Your task to perform on an android device: Open the phone app and click the voicemail tab. Image 0: 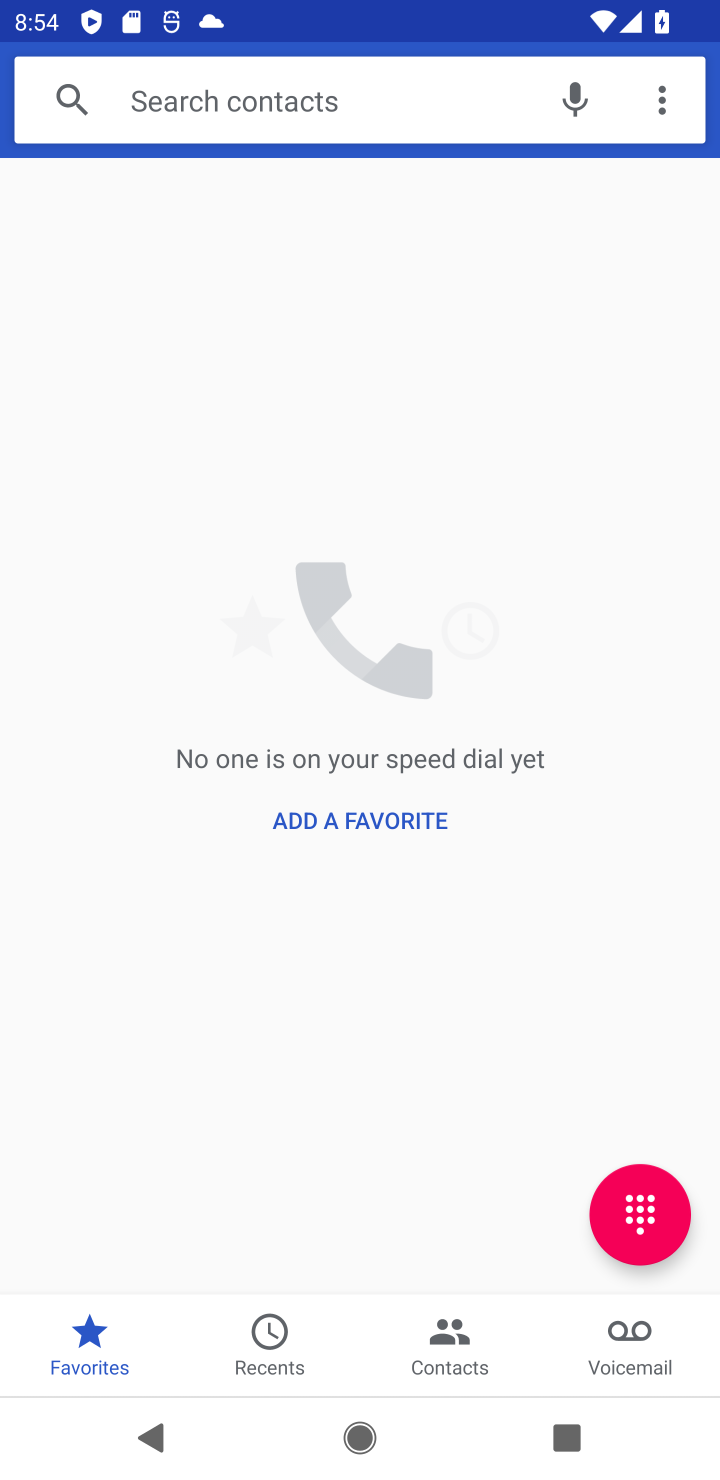
Step 0: press home button
Your task to perform on an android device: Open the phone app and click the voicemail tab. Image 1: 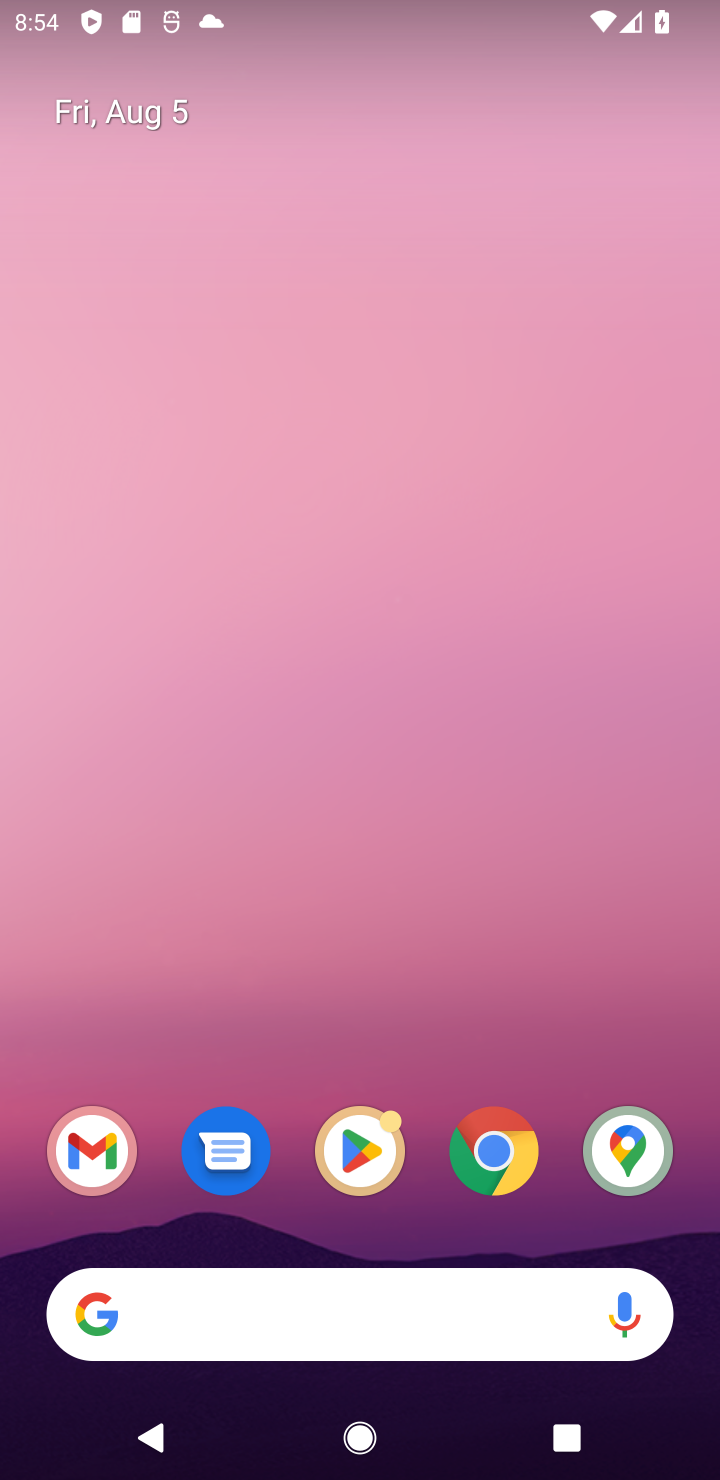
Step 1: drag from (273, 1199) to (402, 123)
Your task to perform on an android device: Open the phone app and click the voicemail tab. Image 2: 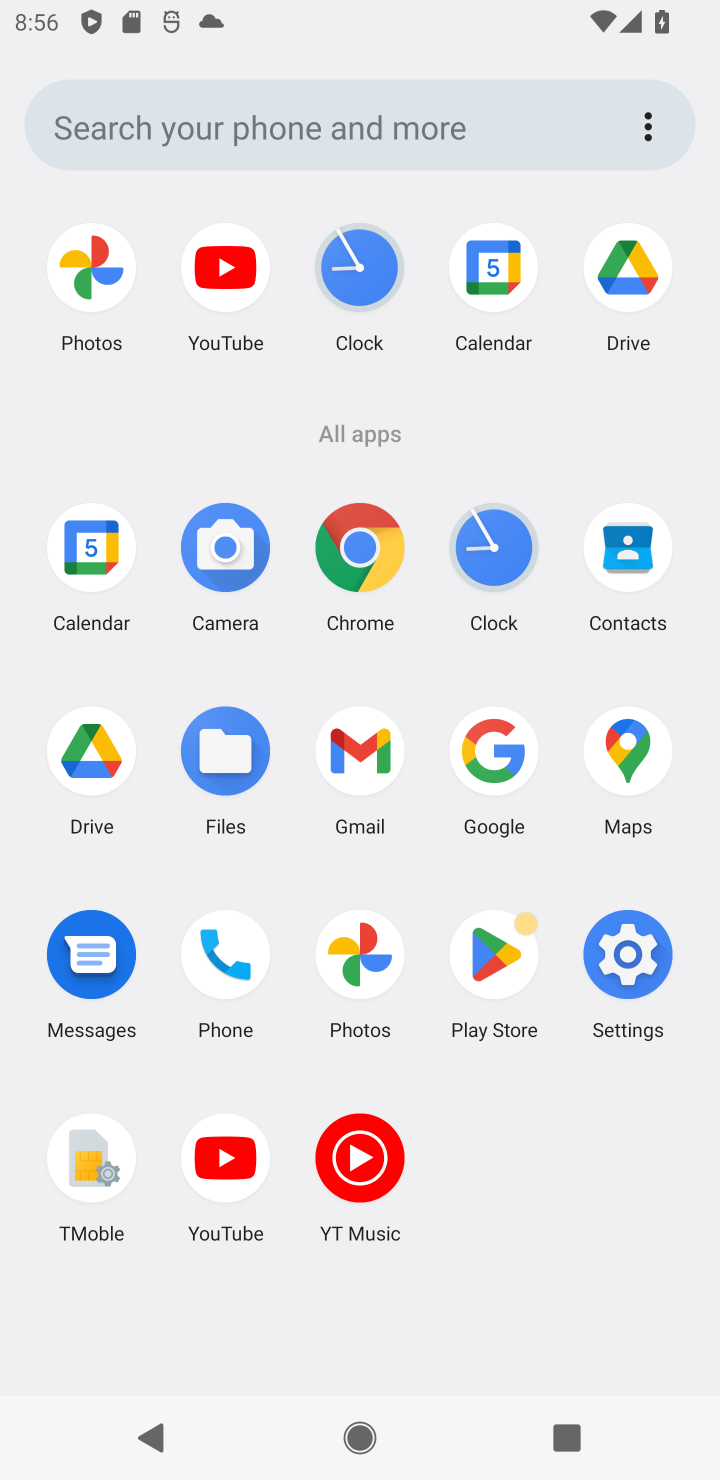
Step 2: click (216, 976)
Your task to perform on an android device: Open the phone app and click the voicemail tab. Image 3: 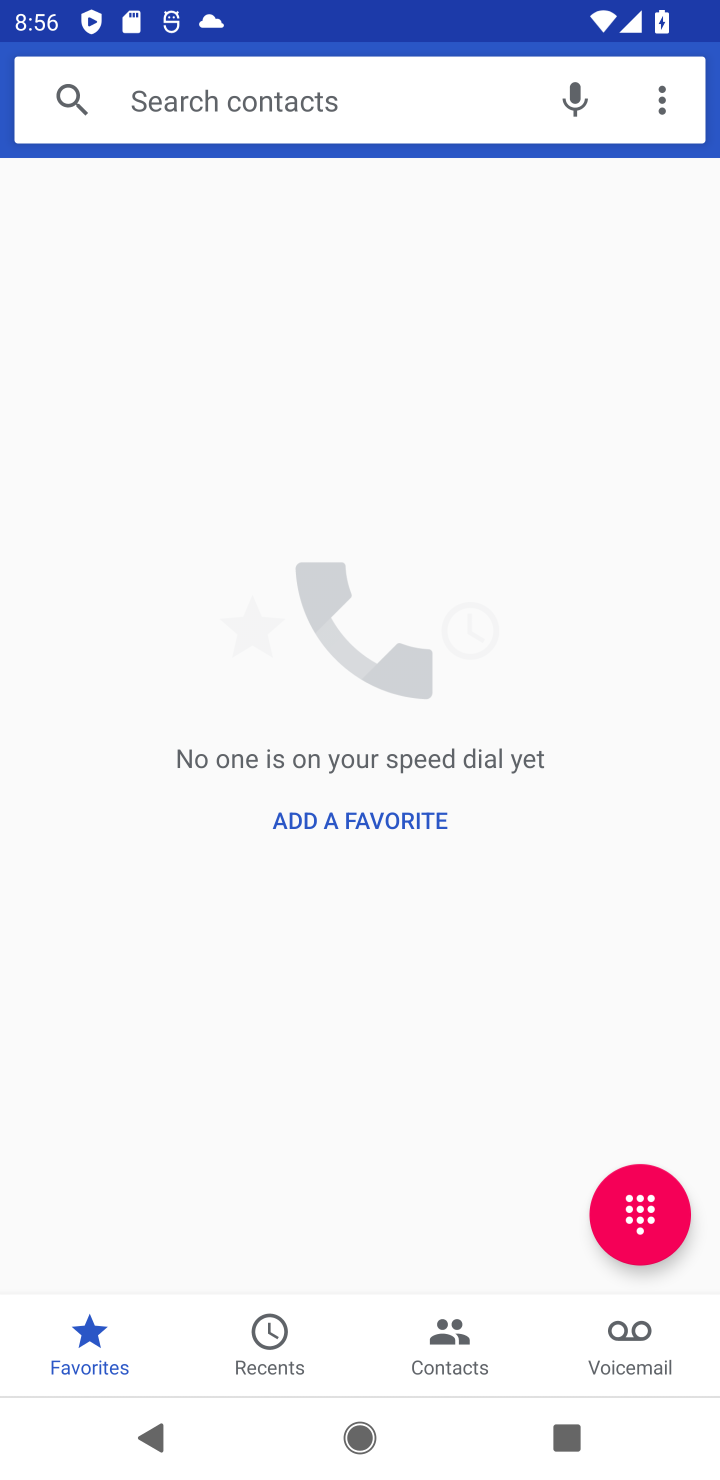
Step 3: click (644, 1347)
Your task to perform on an android device: Open the phone app and click the voicemail tab. Image 4: 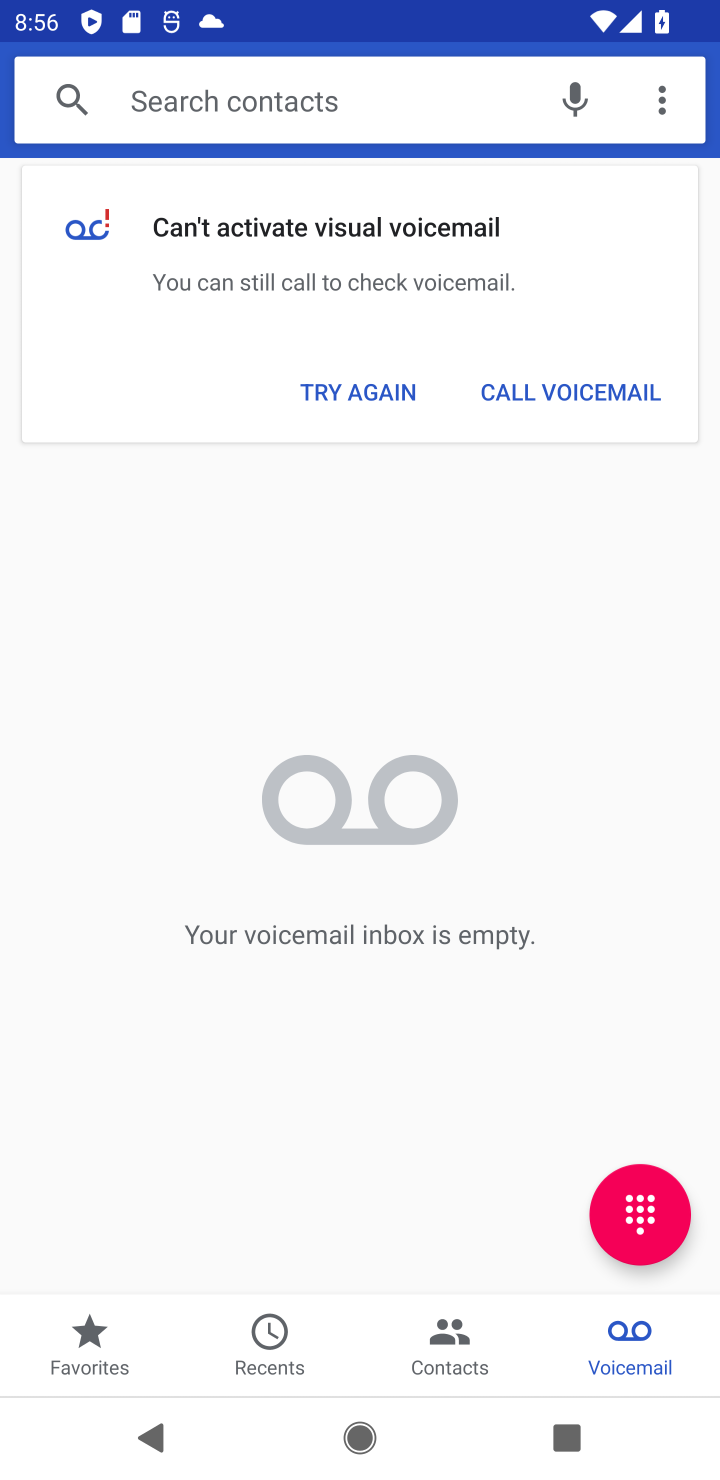
Step 4: task complete